Your task to perform on an android device: turn pop-ups on in chrome Image 0: 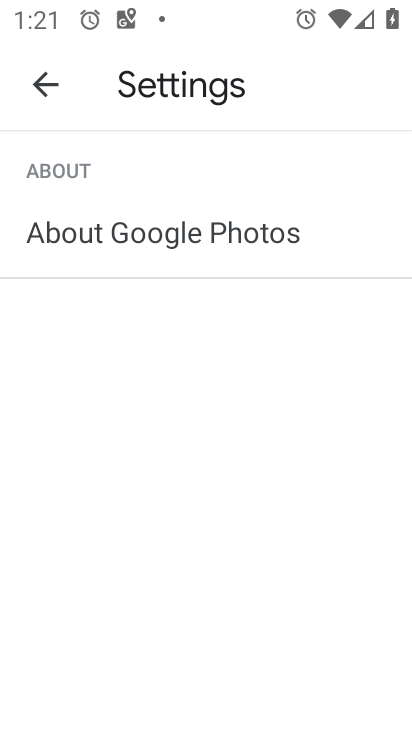
Step 0: press back button
Your task to perform on an android device: turn pop-ups on in chrome Image 1: 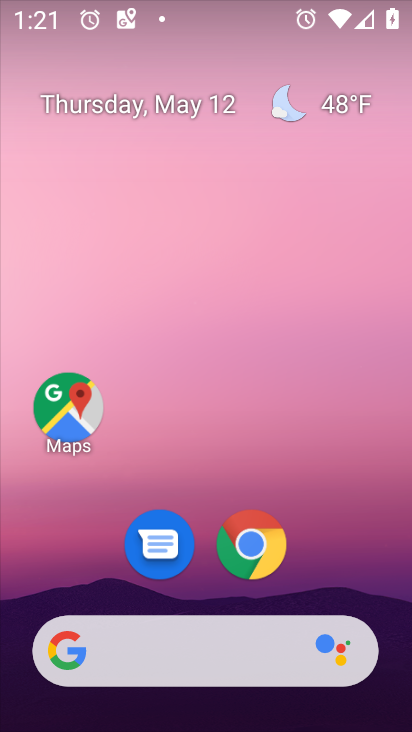
Step 1: drag from (320, 520) to (216, 48)
Your task to perform on an android device: turn pop-ups on in chrome Image 2: 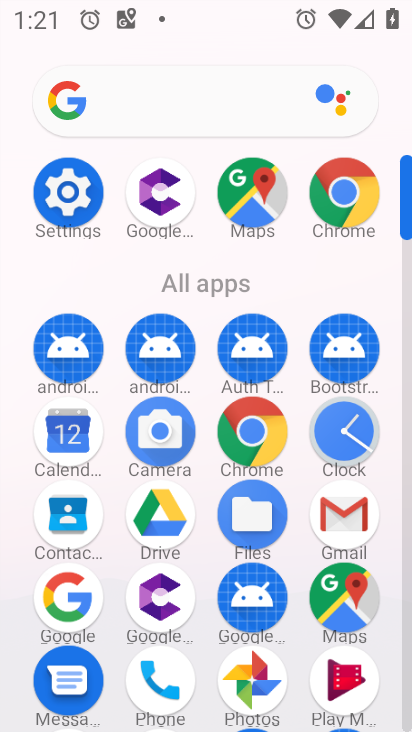
Step 2: click (344, 186)
Your task to perform on an android device: turn pop-ups on in chrome Image 3: 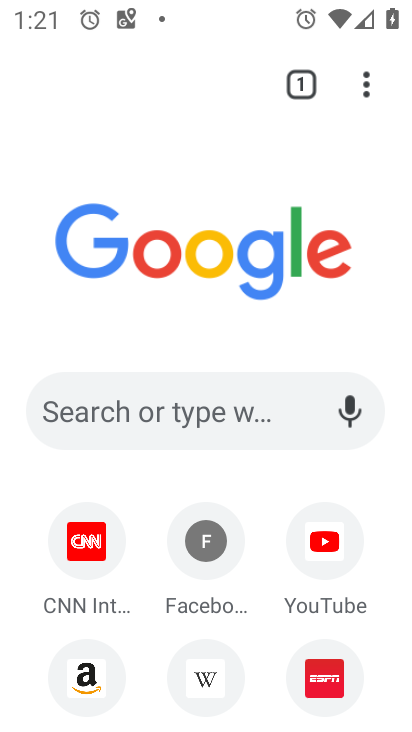
Step 3: drag from (363, 81) to (119, 621)
Your task to perform on an android device: turn pop-ups on in chrome Image 4: 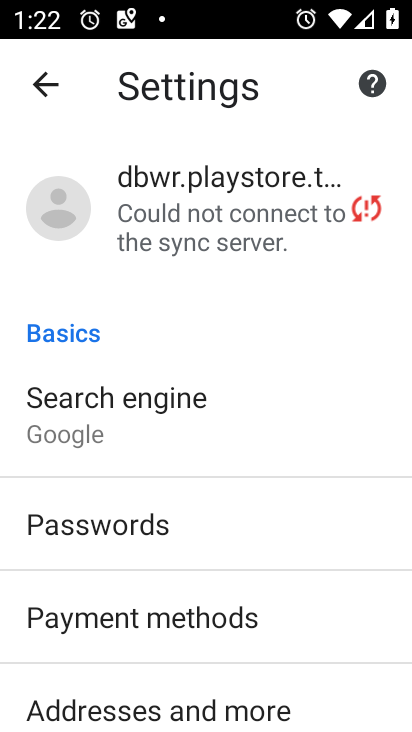
Step 4: drag from (271, 559) to (277, 201)
Your task to perform on an android device: turn pop-ups on in chrome Image 5: 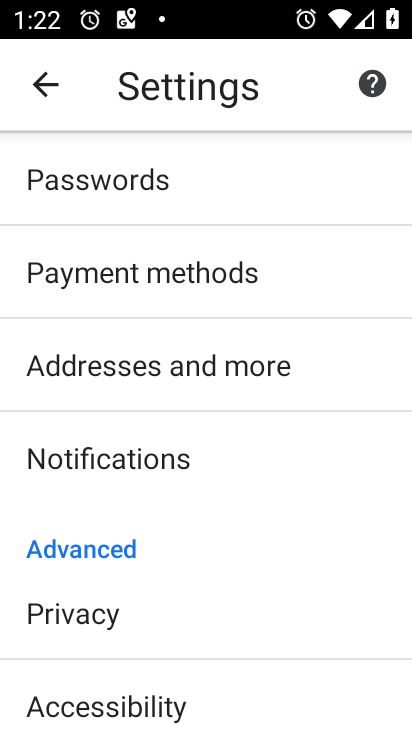
Step 5: drag from (220, 590) to (246, 219)
Your task to perform on an android device: turn pop-ups on in chrome Image 6: 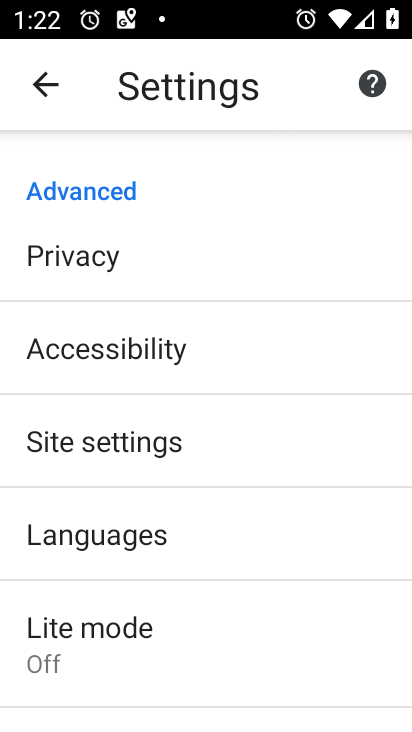
Step 6: click (195, 445)
Your task to perform on an android device: turn pop-ups on in chrome Image 7: 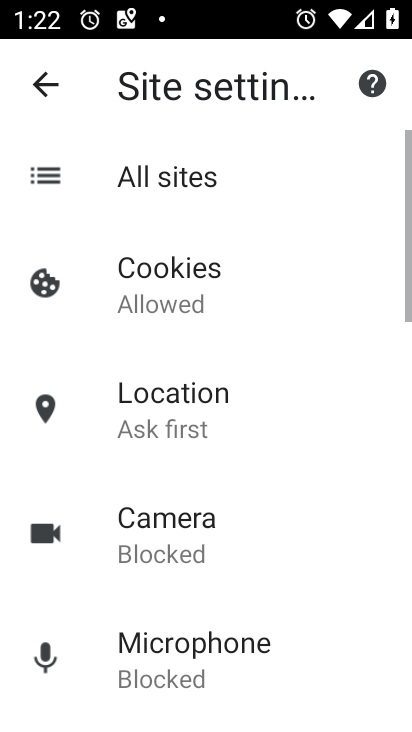
Step 7: drag from (310, 571) to (309, 133)
Your task to perform on an android device: turn pop-ups on in chrome Image 8: 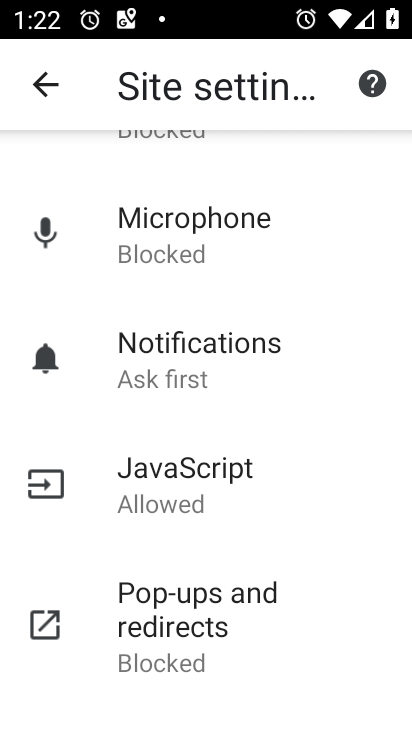
Step 8: drag from (236, 535) to (245, 249)
Your task to perform on an android device: turn pop-ups on in chrome Image 9: 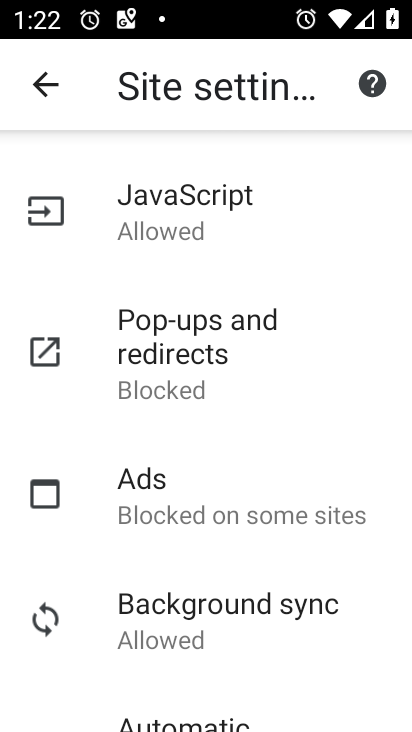
Step 9: click (223, 336)
Your task to perform on an android device: turn pop-ups on in chrome Image 10: 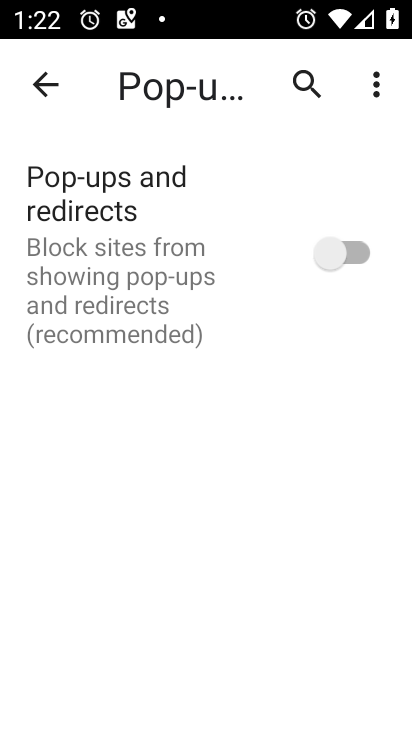
Step 10: click (341, 257)
Your task to perform on an android device: turn pop-ups on in chrome Image 11: 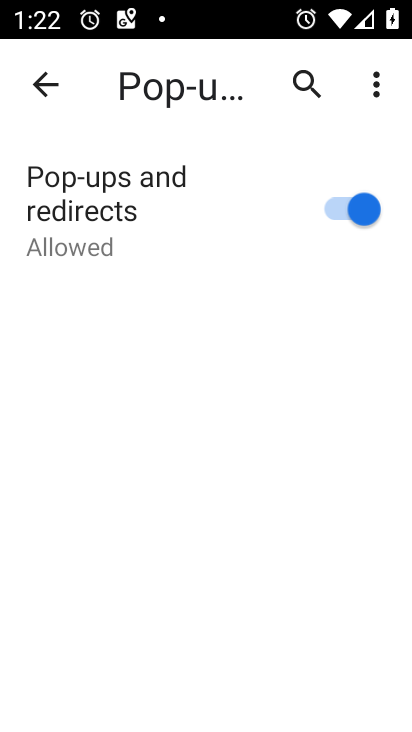
Step 11: task complete